Your task to perform on an android device: Open the calendar app, open the side menu, and click the "Day" option Image 0: 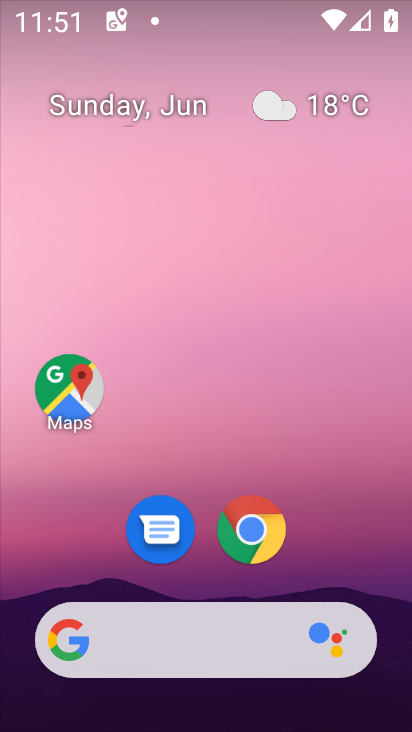
Step 0: drag from (351, 545) to (10, 14)
Your task to perform on an android device: Open the calendar app, open the side menu, and click the "Day" option Image 1: 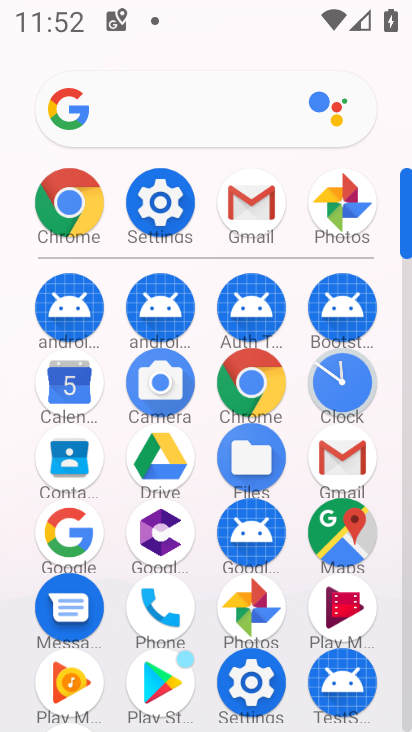
Step 1: click (76, 391)
Your task to perform on an android device: Open the calendar app, open the side menu, and click the "Day" option Image 2: 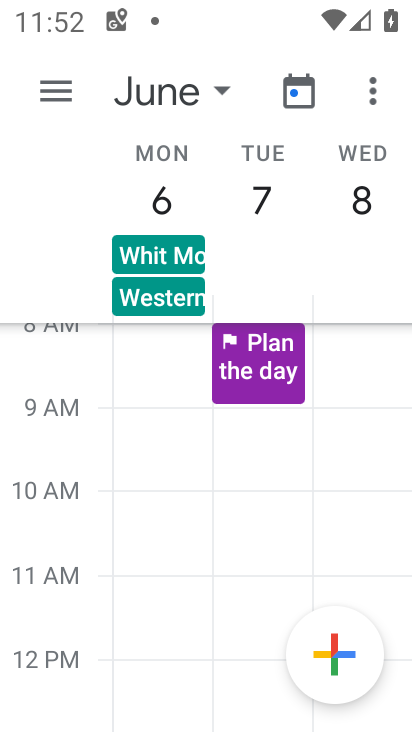
Step 2: click (56, 95)
Your task to perform on an android device: Open the calendar app, open the side menu, and click the "Day" option Image 3: 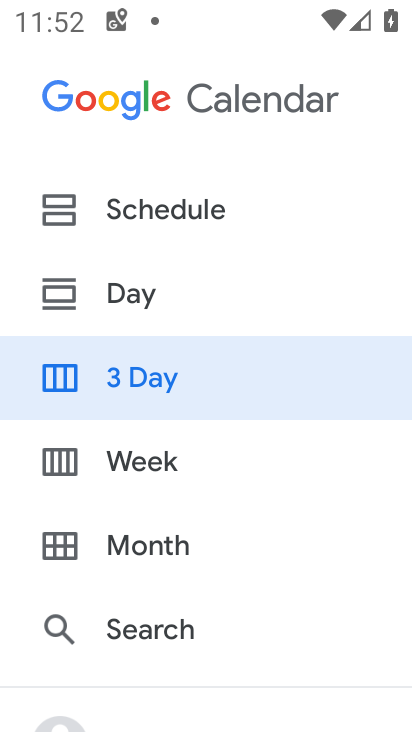
Step 3: click (124, 289)
Your task to perform on an android device: Open the calendar app, open the side menu, and click the "Day" option Image 4: 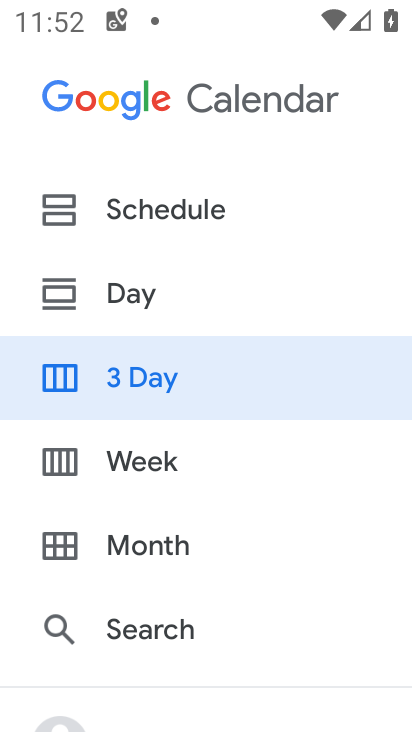
Step 4: click (124, 289)
Your task to perform on an android device: Open the calendar app, open the side menu, and click the "Day" option Image 5: 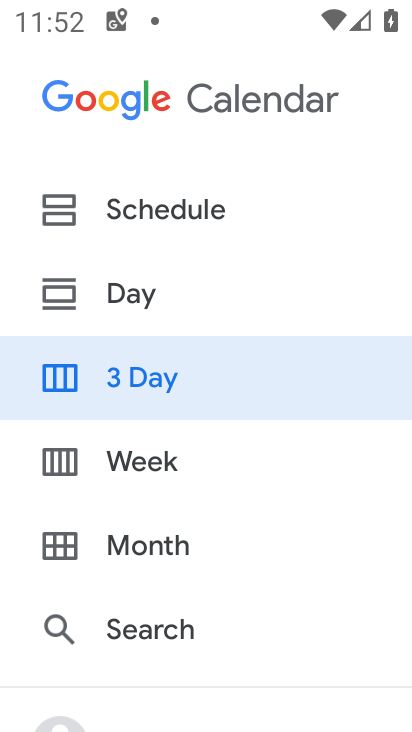
Step 5: click (124, 289)
Your task to perform on an android device: Open the calendar app, open the side menu, and click the "Day" option Image 6: 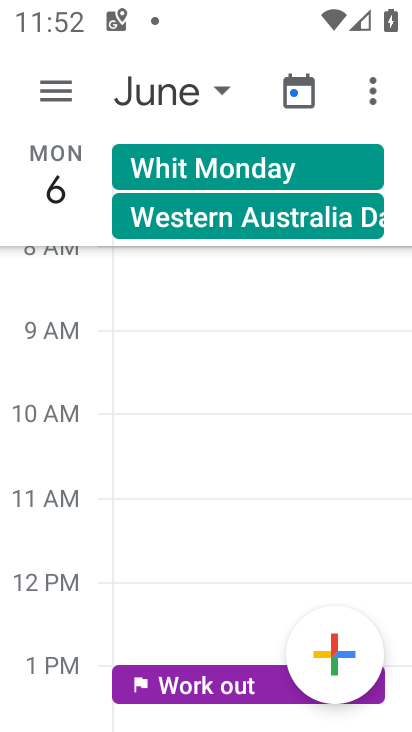
Step 6: task complete